Your task to perform on an android device: When is my next appointment? Image 0: 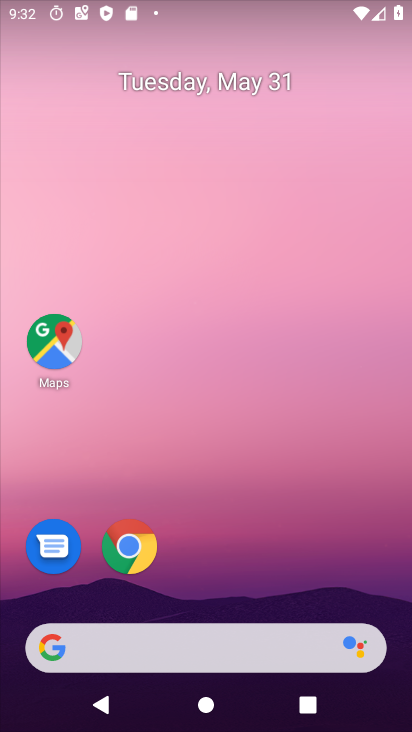
Step 0: click (250, 83)
Your task to perform on an android device: When is my next appointment? Image 1: 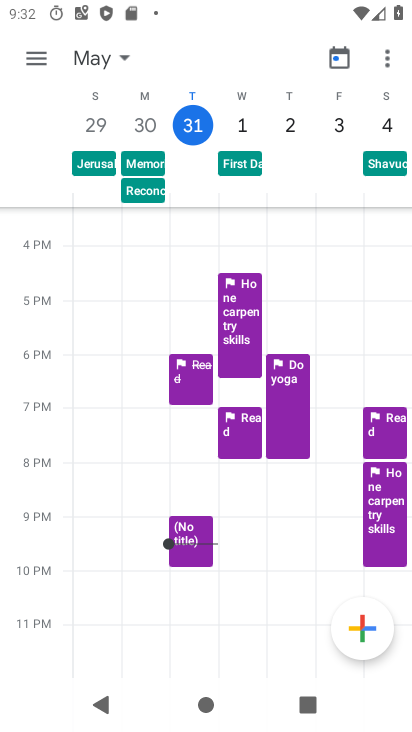
Step 1: click (37, 56)
Your task to perform on an android device: When is my next appointment? Image 2: 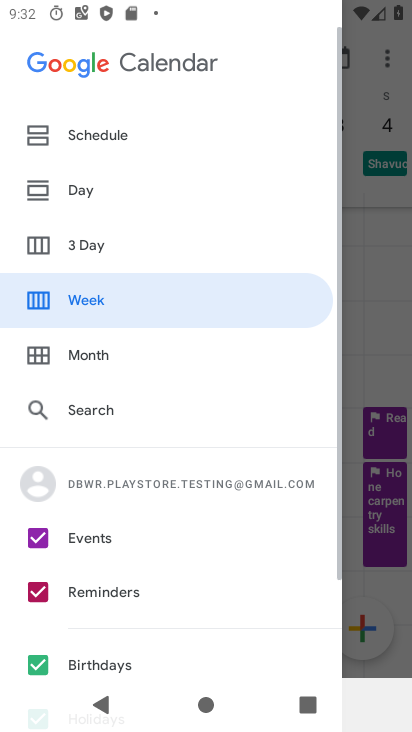
Step 2: click (70, 140)
Your task to perform on an android device: When is my next appointment? Image 3: 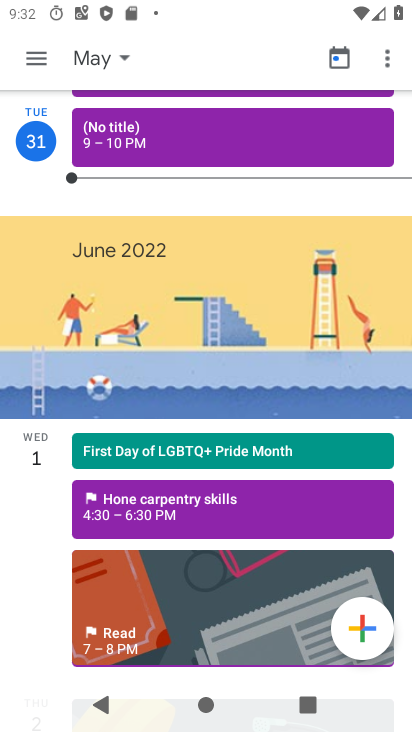
Step 3: task complete